Your task to perform on an android device: Check the weather Image 0: 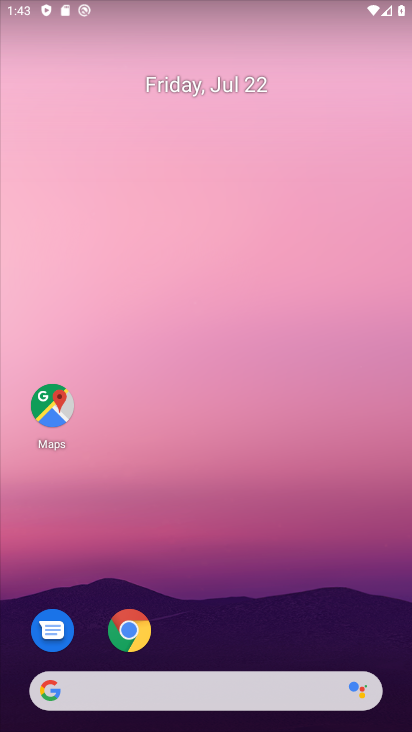
Step 0: drag from (184, 649) to (246, 159)
Your task to perform on an android device: Check the weather Image 1: 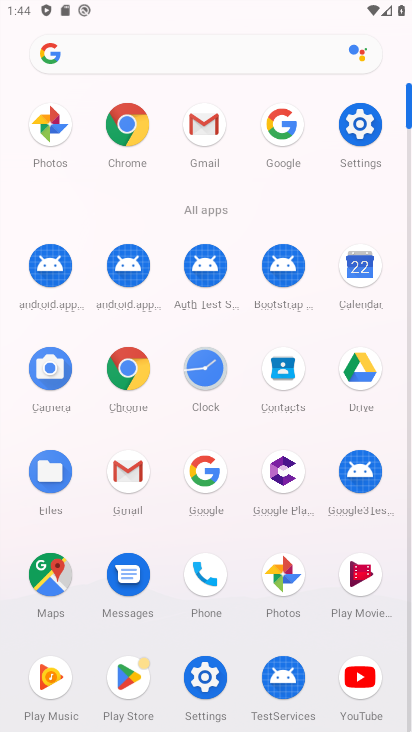
Step 1: click (206, 469)
Your task to perform on an android device: Check the weather Image 2: 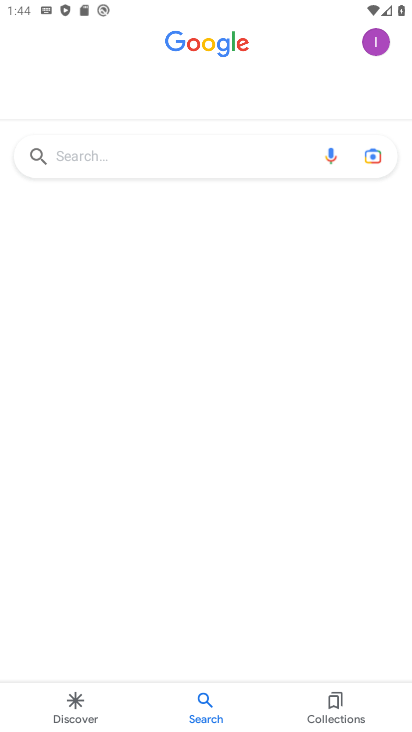
Step 2: type "check the weather"
Your task to perform on an android device: Check the weather Image 3: 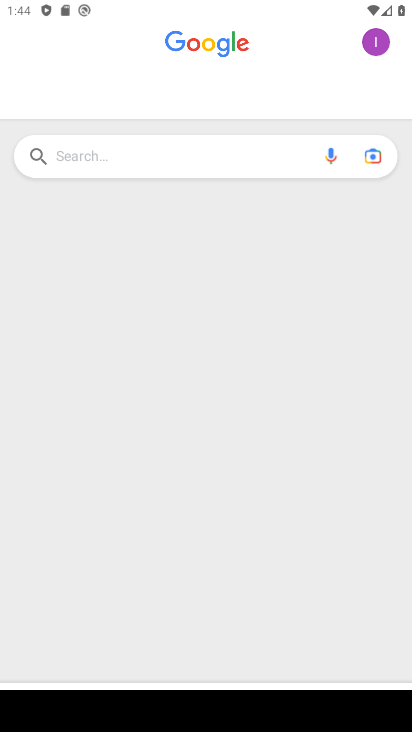
Step 3: click (134, 161)
Your task to perform on an android device: Check the weather Image 4: 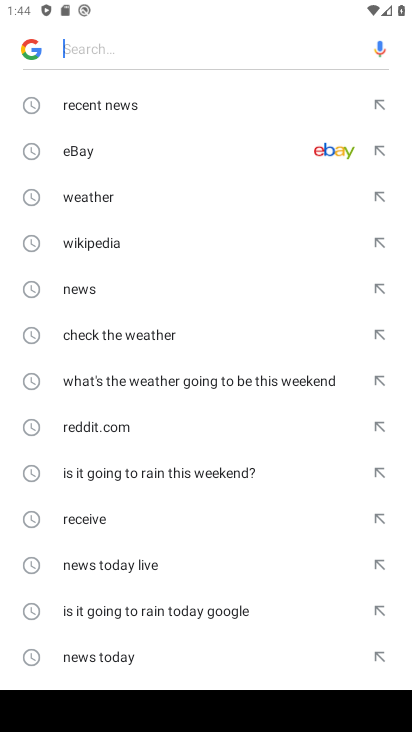
Step 4: click (112, 335)
Your task to perform on an android device: Check the weather Image 5: 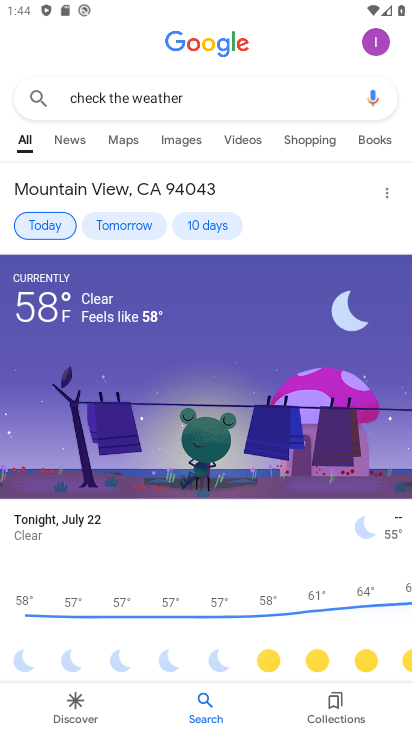
Step 5: task complete